Your task to perform on an android device: Open Android settings Image 0: 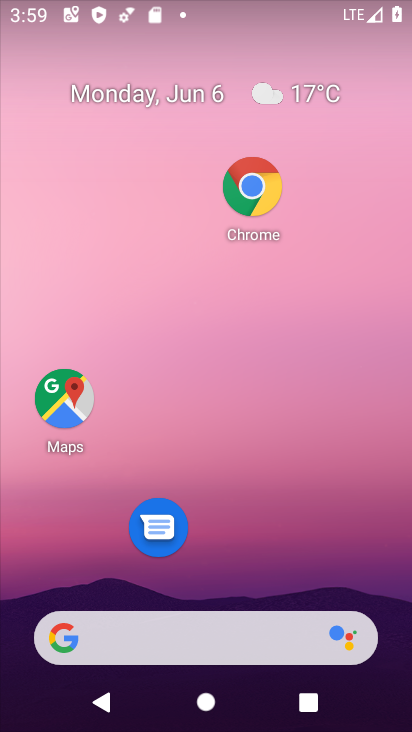
Step 0: drag from (195, 520) to (185, 283)
Your task to perform on an android device: Open Android settings Image 1: 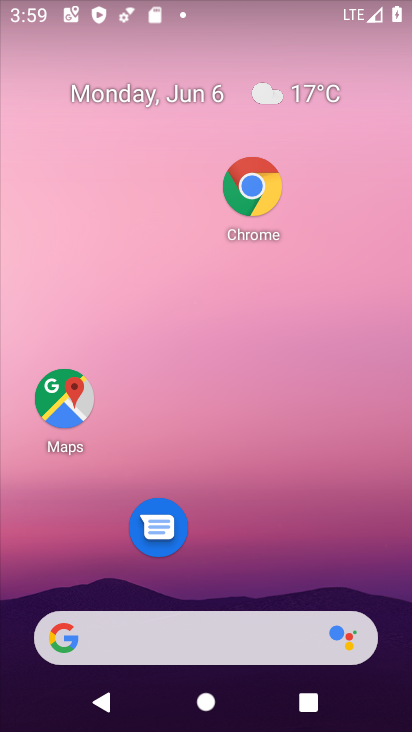
Step 1: drag from (210, 491) to (195, 172)
Your task to perform on an android device: Open Android settings Image 2: 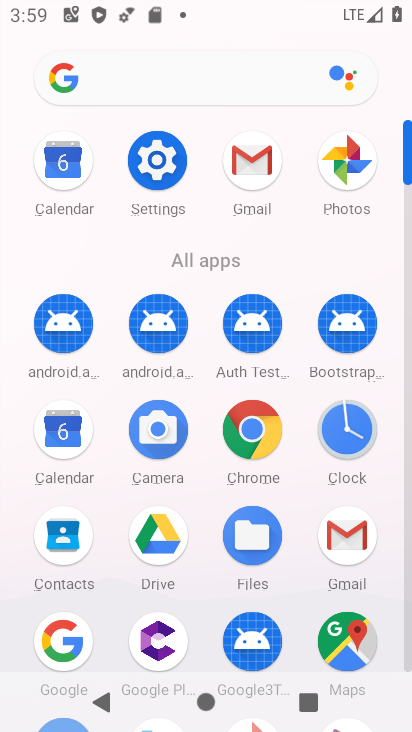
Step 2: click (149, 169)
Your task to perform on an android device: Open Android settings Image 3: 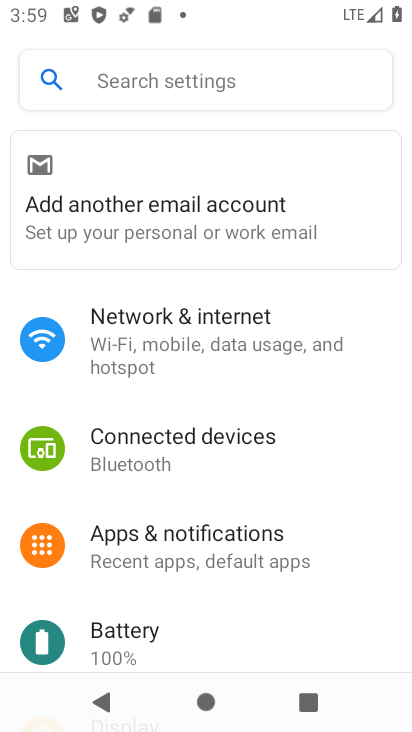
Step 3: task complete